Your task to perform on an android device: Open Google Chrome Image 0: 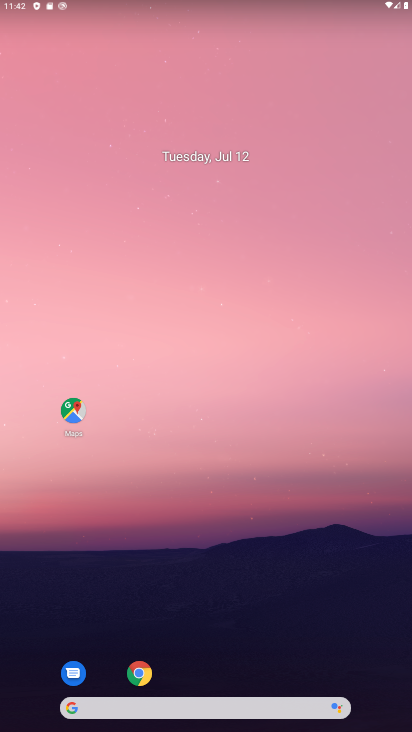
Step 0: drag from (188, 687) to (240, 51)
Your task to perform on an android device: Open Google Chrome Image 1: 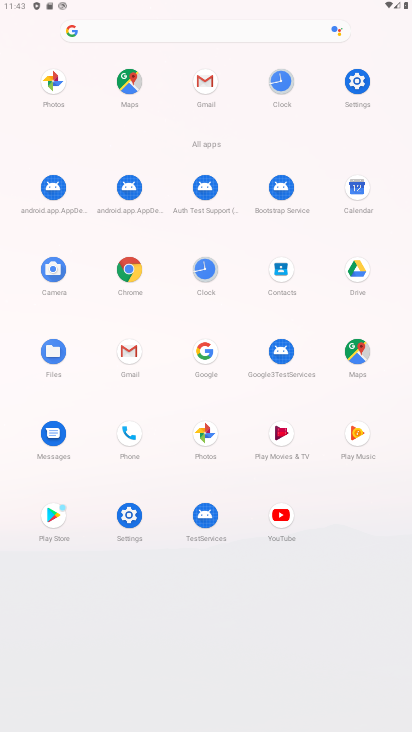
Step 1: click (126, 265)
Your task to perform on an android device: Open Google Chrome Image 2: 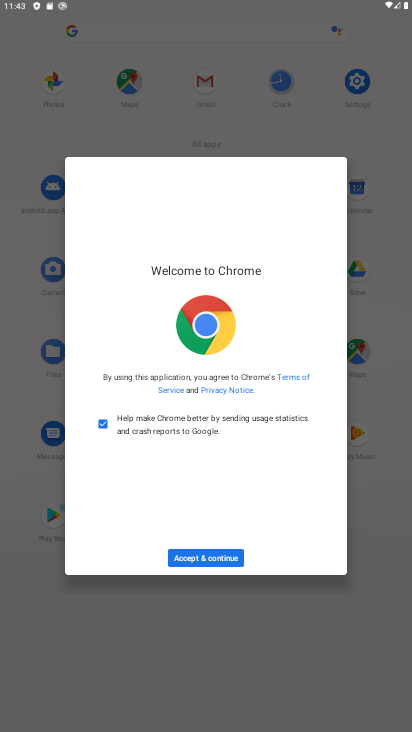
Step 2: click (199, 563)
Your task to perform on an android device: Open Google Chrome Image 3: 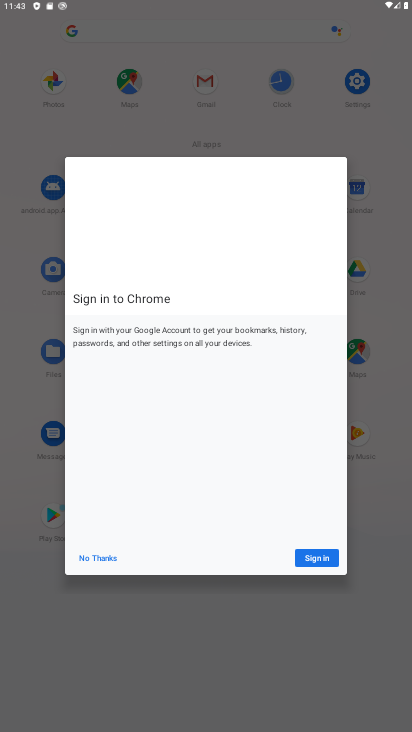
Step 3: click (330, 554)
Your task to perform on an android device: Open Google Chrome Image 4: 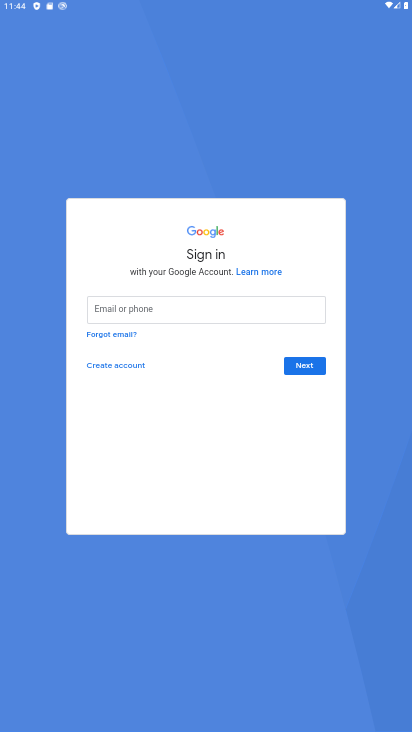
Step 4: drag from (201, 429) to (220, 97)
Your task to perform on an android device: Open Google Chrome Image 5: 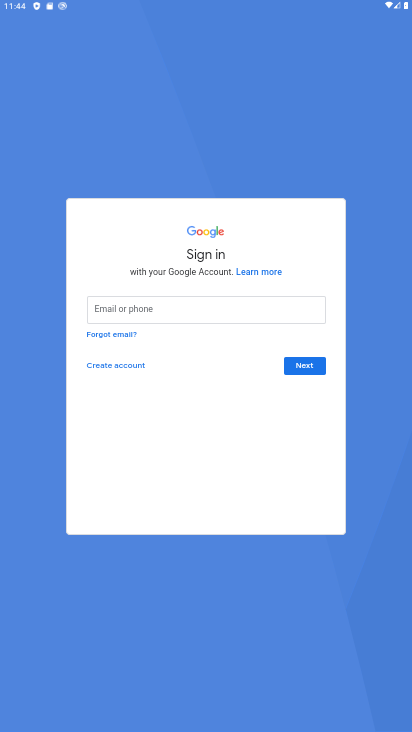
Step 5: drag from (203, 520) to (258, 161)
Your task to perform on an android device: Open Google Chrome Image 6: 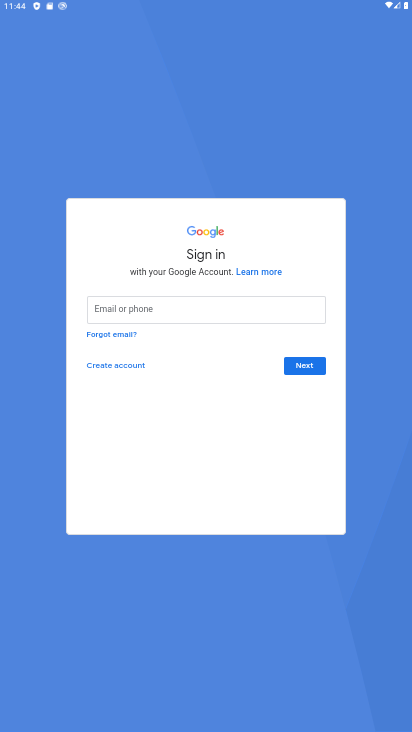
Step 6: click (263, 96)
Your task to perform on an android device: Open Google Chrome Image 7: 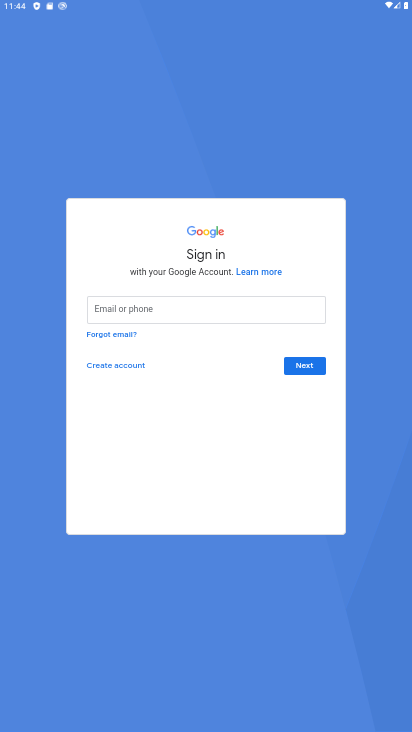
Step 7: click (197, 617)
Your task to perform on an android device: Open Google Chrome Image 8: 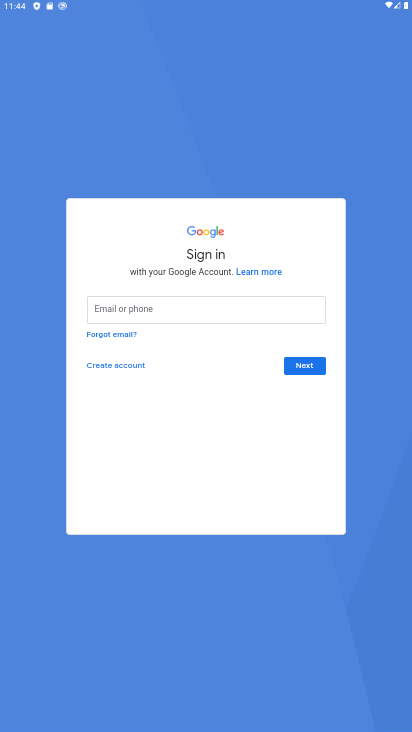
Step 8: click (197, 617)
Your task to perform on an android device: Open Google Chrome Image 9: 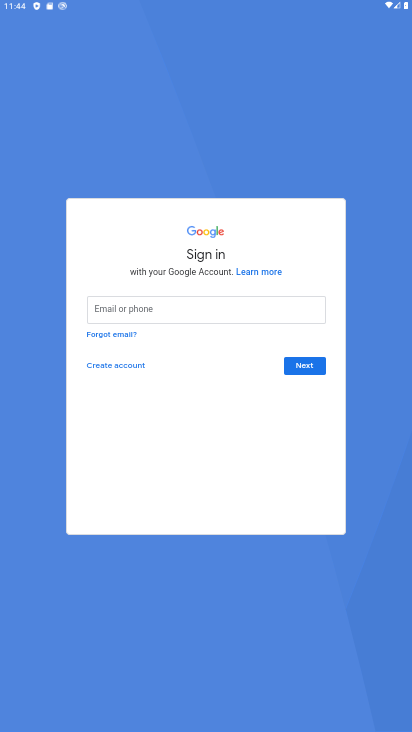
Step 9: click (236, 134)
Your task to perform on an android device: Open Google Chrome Image 10: 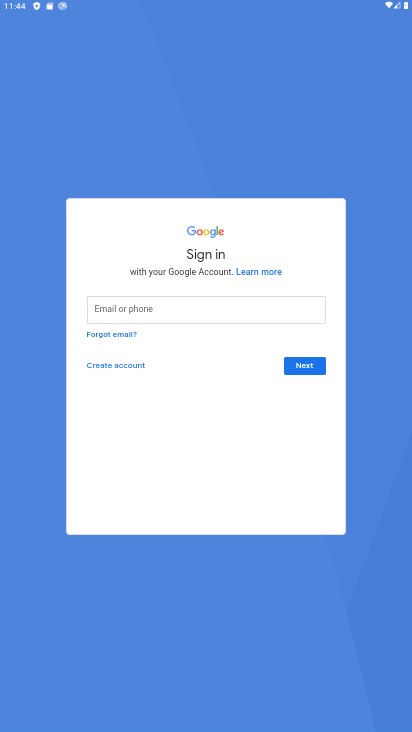
Step 10: click (238, 133)
Your task to perform on an android device: Open Google Chrome Image 11: 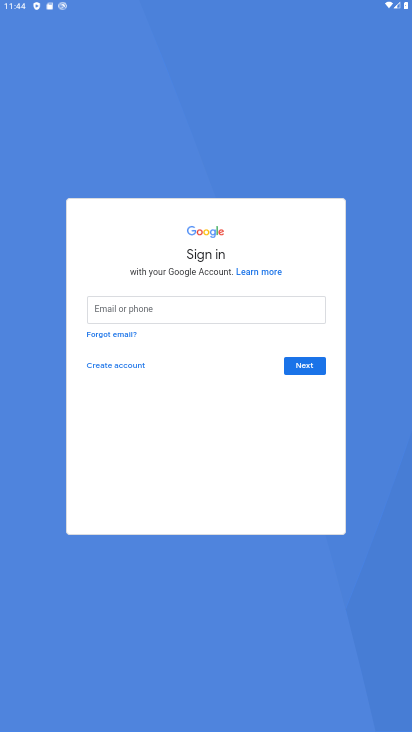
Step 11: click (207, 658)
Your task to perform on an android device: Open Google Chrome Image 12: 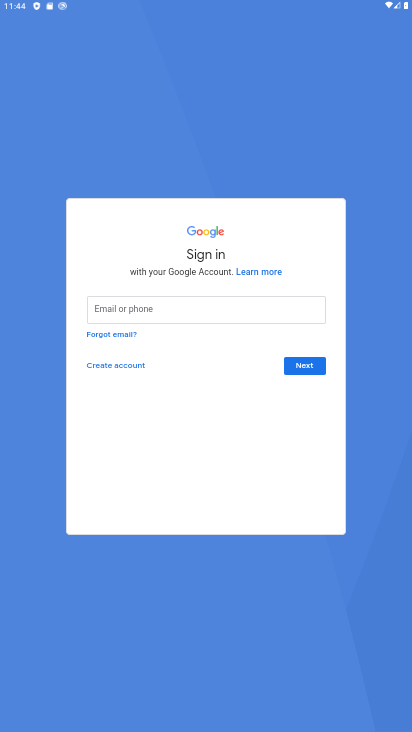
Step 12: click (247, 63)
Your task to perform on an android device: Open Google Chrome Image 13: 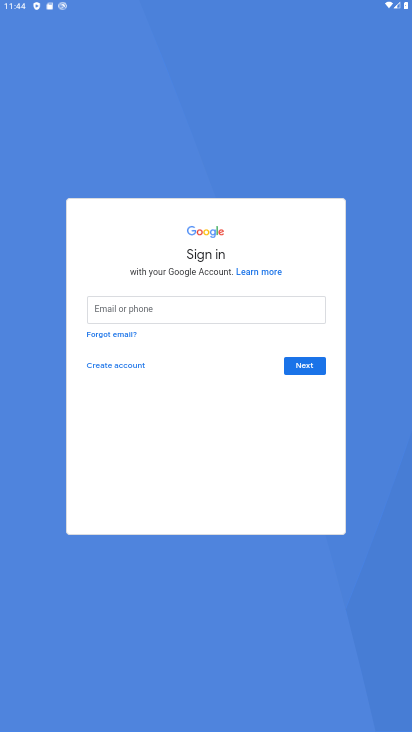
Step 13: click (173, 591)
Your task to perform on an android device: Open Google Chrome Image 14: 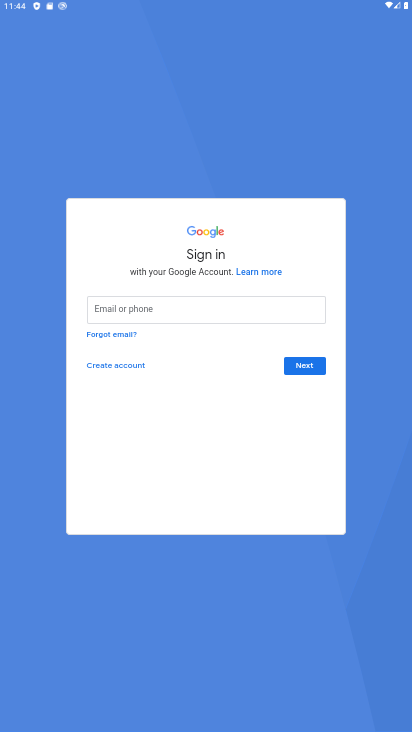
Step 14: press home button
Your task to perform on an android device: Open Google Chrome Image 15: 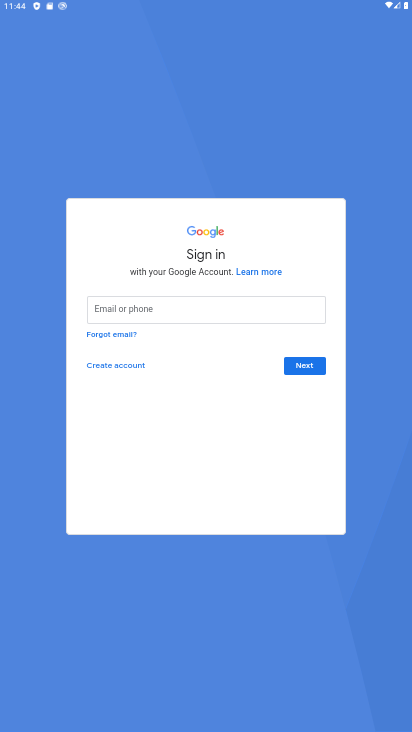
Step 15: press home button
Your task to perform on an android device: Open Google Chrome Image 16: 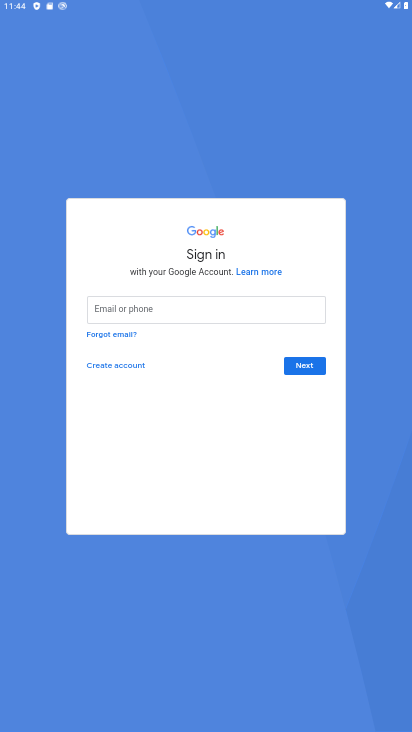
Step 16: click (282, 32)
Your task to perform on an android device: Open Google Chrome Image 17: 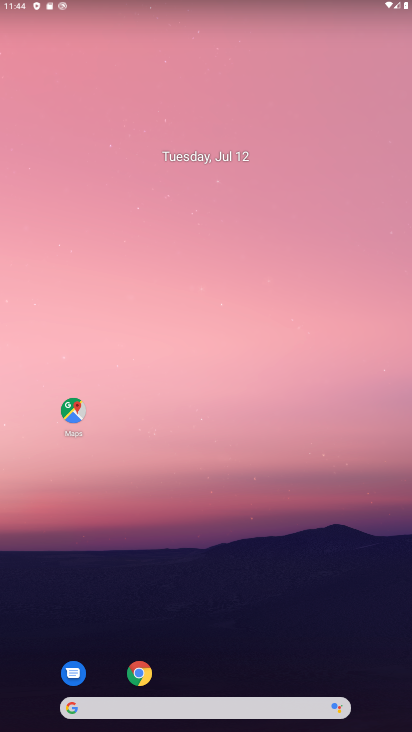
Step 17: drag from (224, 622) to (267, 12)
Your task to perform on an android device: Open Google Chrome Image 18: 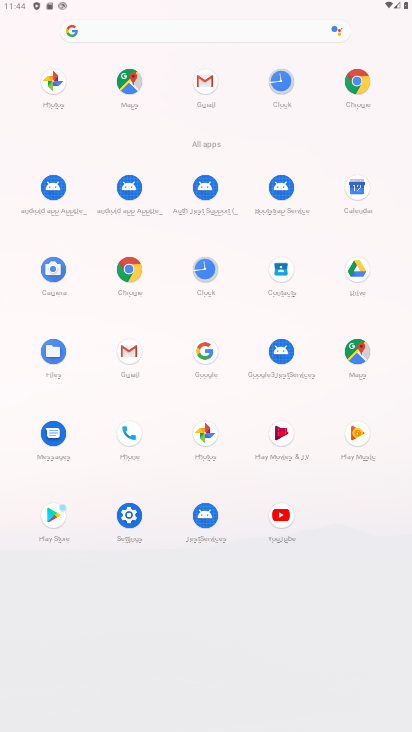
Step 18: click (126, 270)
Your task to perform on an android device: Open Google Chrome Image 19: 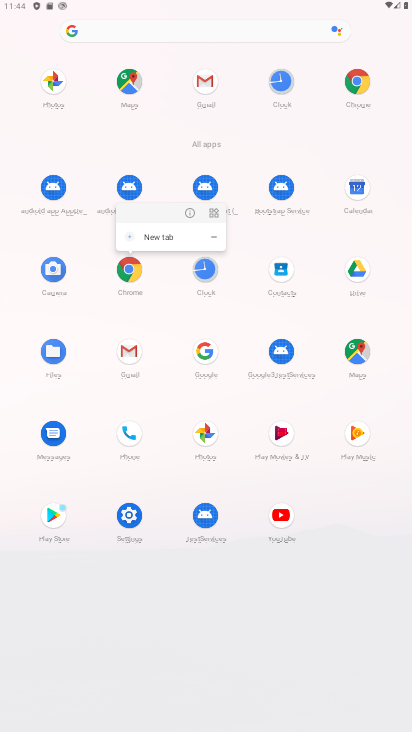
Step 19: click (185, 208)
Your task to perform on an android device: Open Google Chrome Image 20: 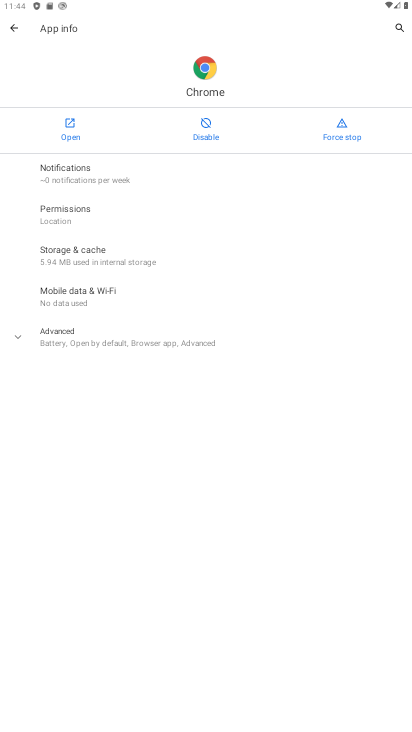
Step 20: click (62, 130)
Your task to perform on an android device: Open Google Chrome Image 21: 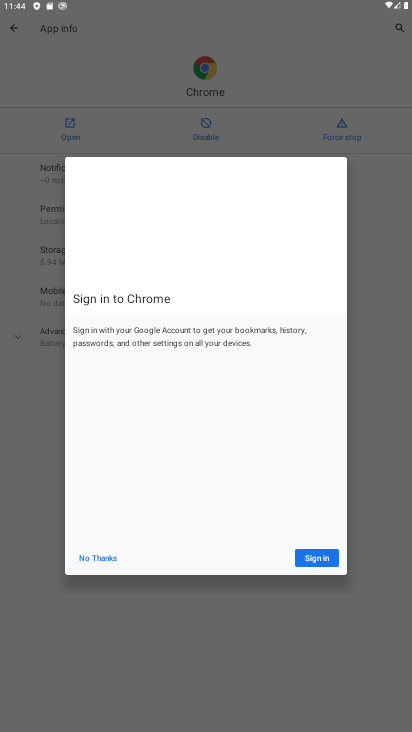
Step 21: task complete